Your task to perform on an android device: find photos in the google photos app Image 0: 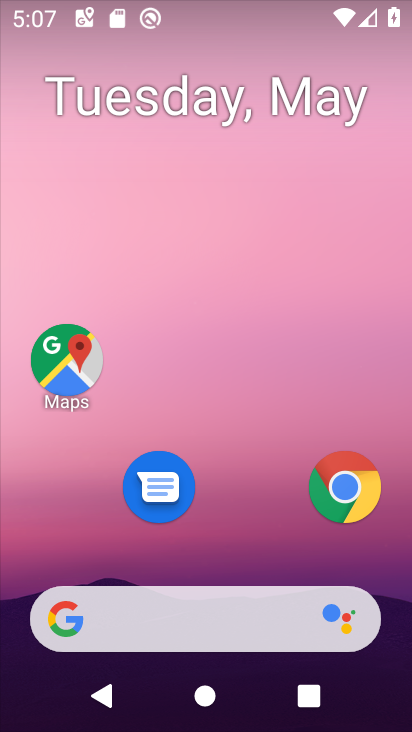
Step 0: drag from (241, 559) to (258, 13)
Your task to perform on an android device: find photos in the google photos app Image 1: 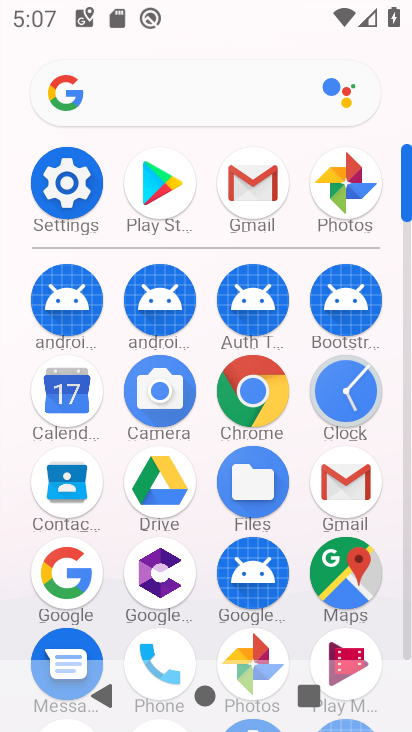
Step 1: click (341, 169)
Your task to perform on an android device: find photos in the google photos app Image 2: 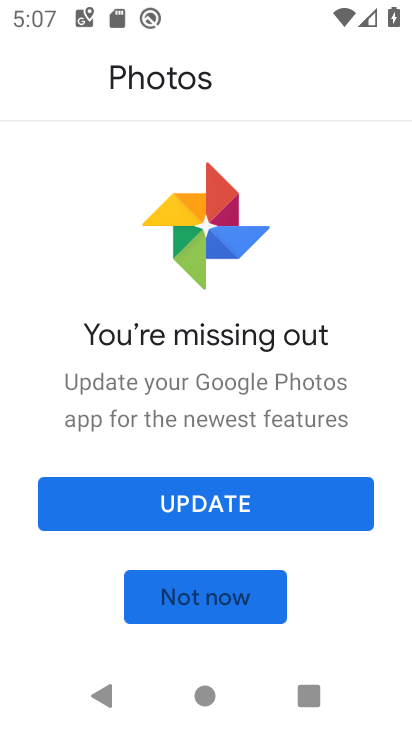
Step 2: click (281, 491)
Your task to perform on an android device: find photos in the google photos app Image 3: 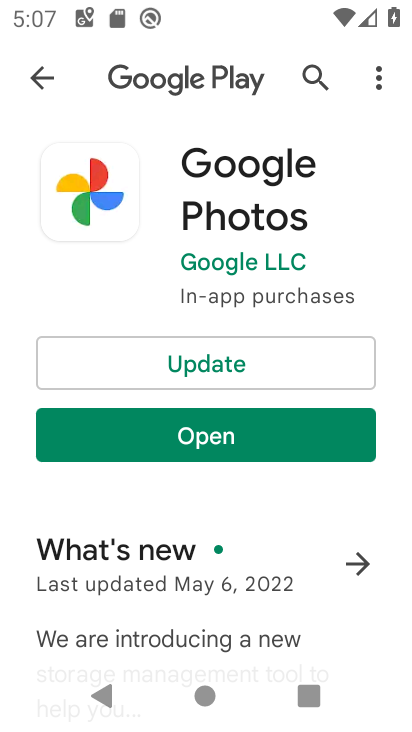
Step 3: click (210, 371)
Your task to perform on an android device: find photos in the google photos app Image 4: 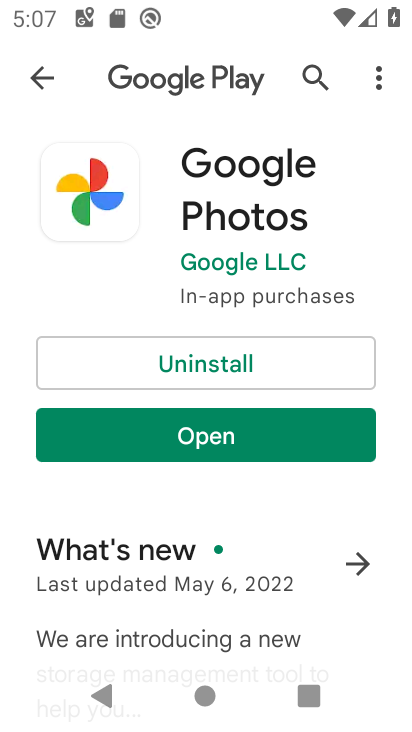
Step 4: click (214, 433)
Your task to perform on an android device: find photos in the google photos app Image 5: 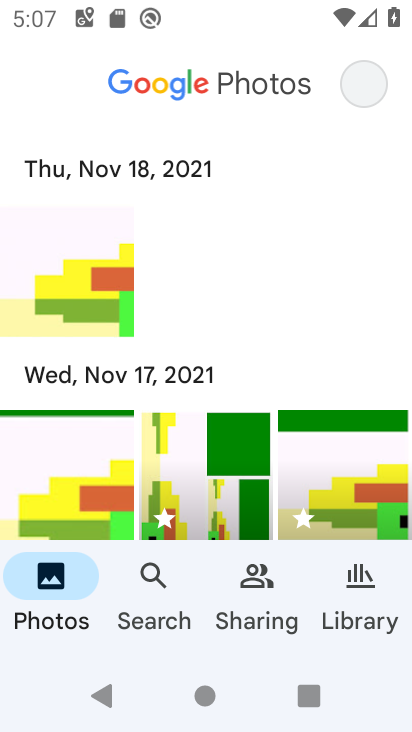
Step 5: task complete